Your task to perform on an android device: Go to location settings Image 0: 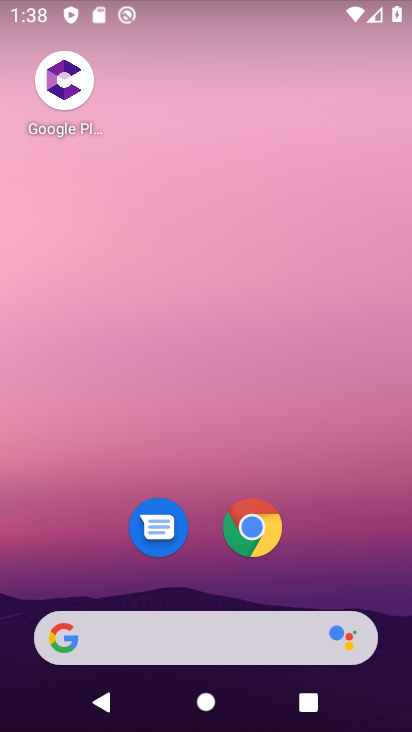
Step 0: drag from (321, 513) to (331, 132)
Your task to perform on an android device: Go to location settings Image 1: 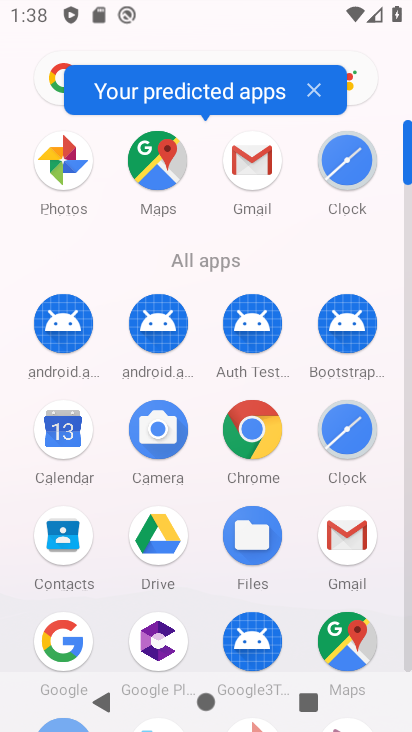
Step 1: drag from (183, 583) to (251, 96)
Your task to perform on an android device: Go to location settings Image 2: 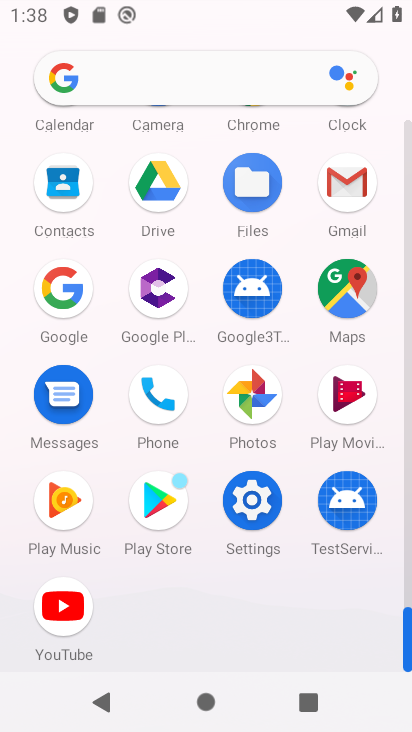
Step 2: click (257, 490)
Your task to perform on an android device: Go to location settings Image 3: 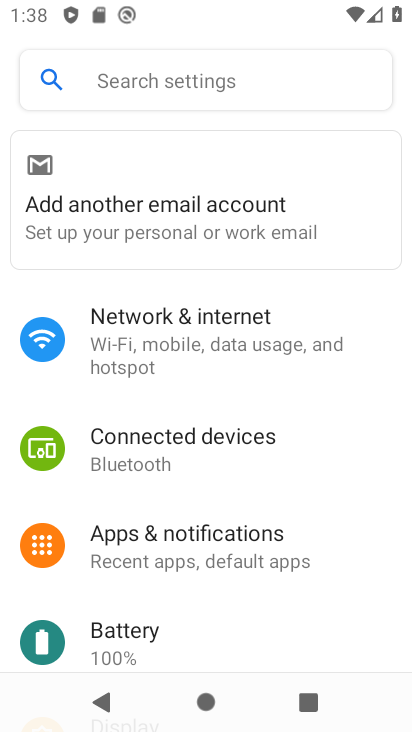
Step 3: drag from (163, 588) to (152, 263)
Your task to perform on an android device: Go to location settings Image 4: 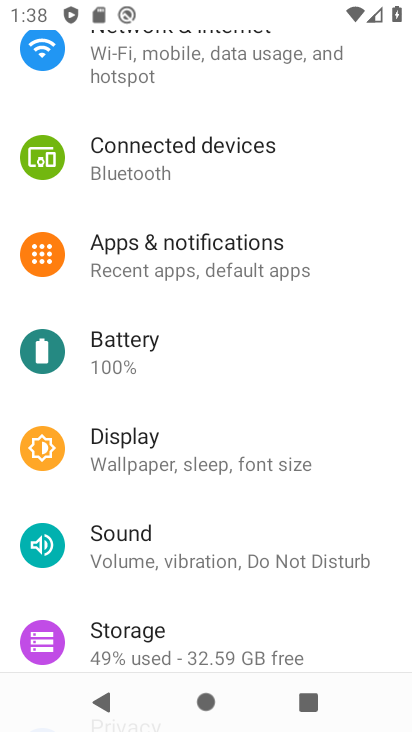
Step 4: drag from (169, 540) to (143, 171)
Your task to perform on an android device: Go to location settings Image 5: 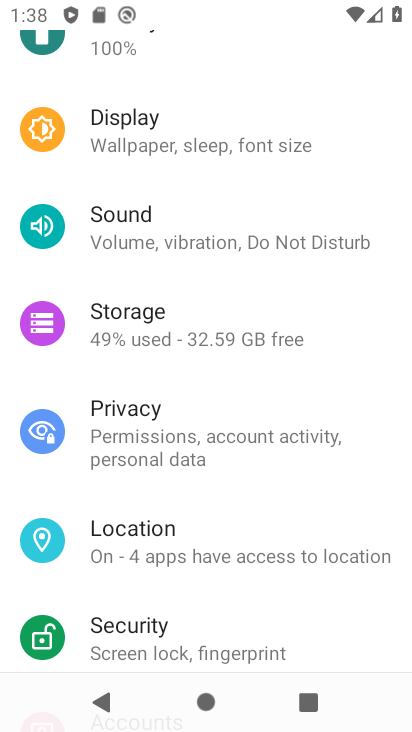
Step 5: drag from (165, 580) to (132, 338)
Your task to perform on an android device: Go to location settings Image 6: 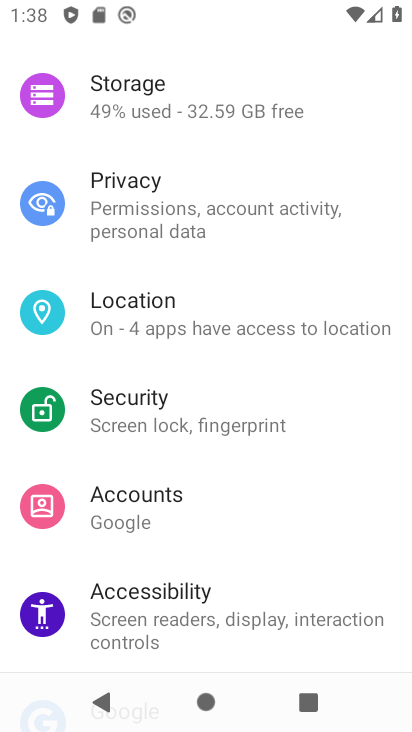
Step 6: click (153, 295)
Your task to perform on an android device: Go to location settings Image 7: 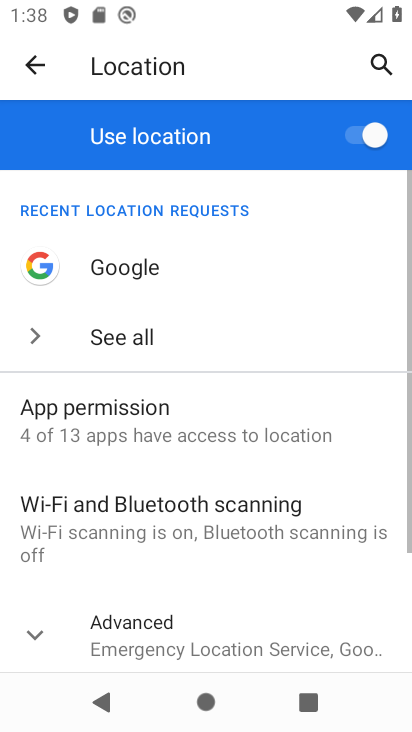
Step 7: drag from (231, 553) to (150, 86)
Your task to perform on an android device: Go to location settings Image 8: 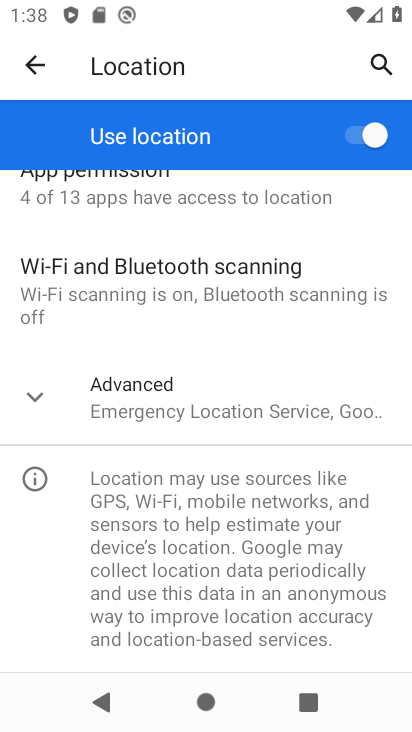
Step 8: click (216, 383)
Your task to perform on an android device: Go to location settings Image 9: 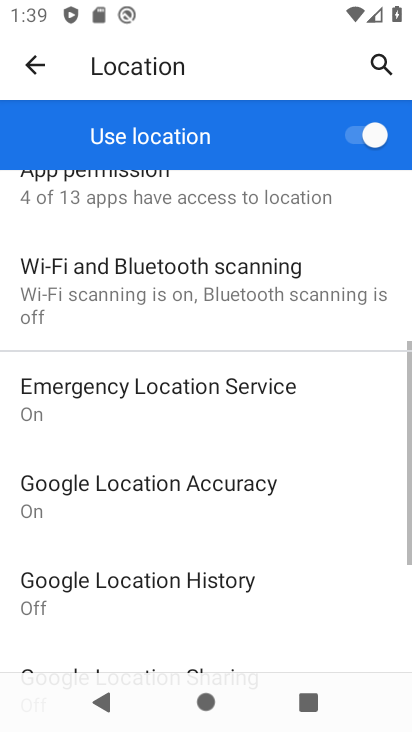
Step 9: task complete